Your task to perform on an android device: turn on the 24-hour format for clock Image 0: 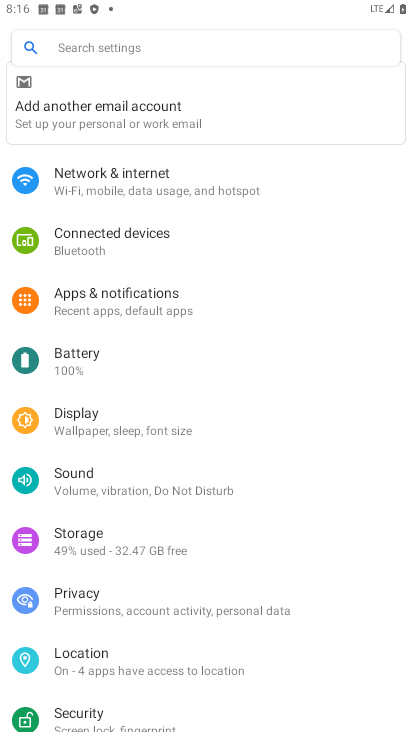
Step 0: press home button
Your task to perform on an android device: turn on the 24-hour format for clock Image 1: 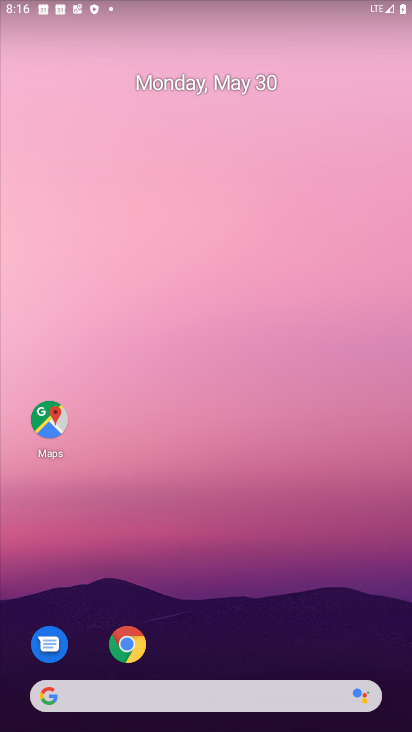
Step 1: drag from (257, 632) to (252, 146)
Your task to perform on an android device: turn on the 24-hour format for clock Image 2: 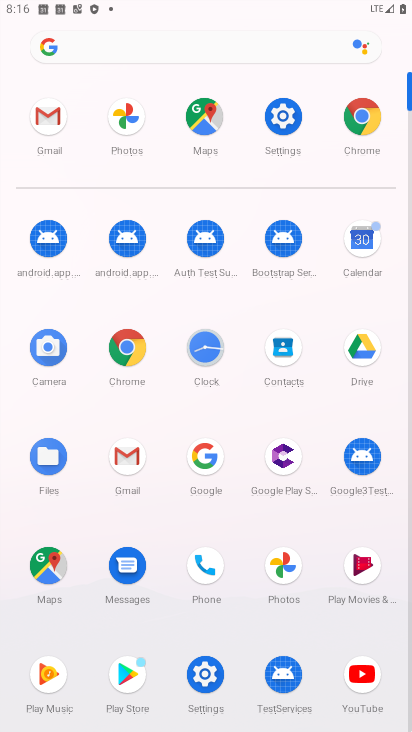
Step 2: click (204, 346)
Your task to perform on an android device: turn on the 24-hour format for clock Image 3: 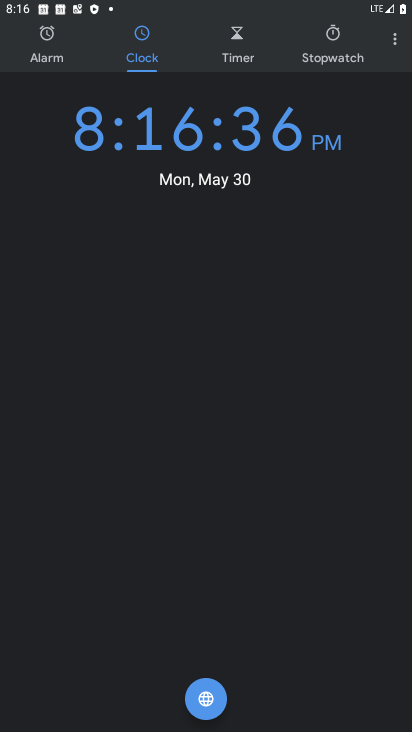
Step 3: click (397, 40)
Your task to perform on an android device: turn on the 24-hour format for clock Image 4: 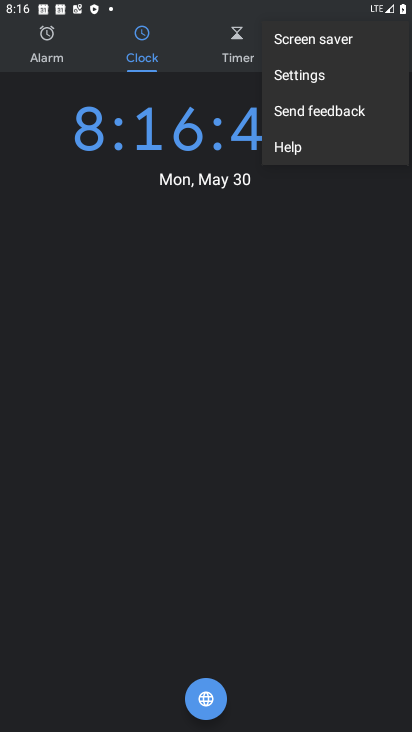
Step 4: click (307, 77)
Your task to perform on an android device: turn on the 24-hour format for clock Image 5: 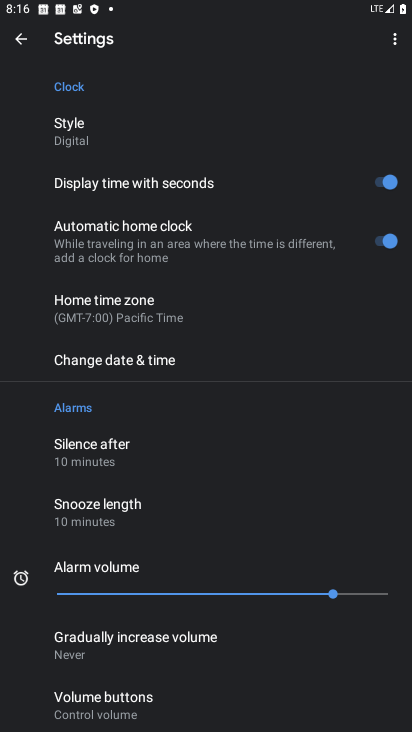
Step 5: click (133, 361)
Your task to perform on an android device: turn on the 24-hour format for clock Image 6: 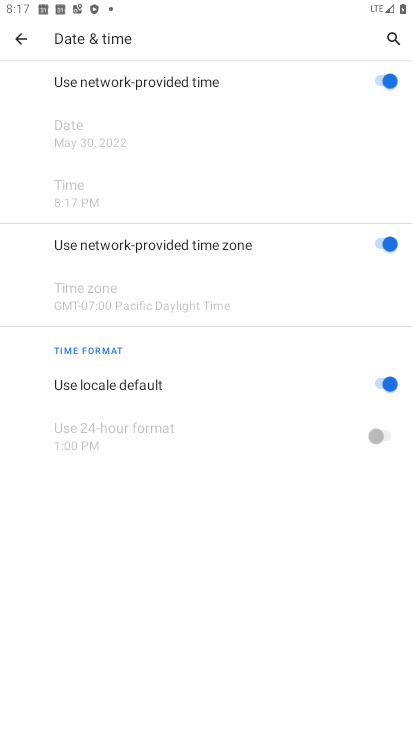
Step 6: click (382, 384)
Your task to perform on an android device: turn on the 24-hour format for clock Image 7: 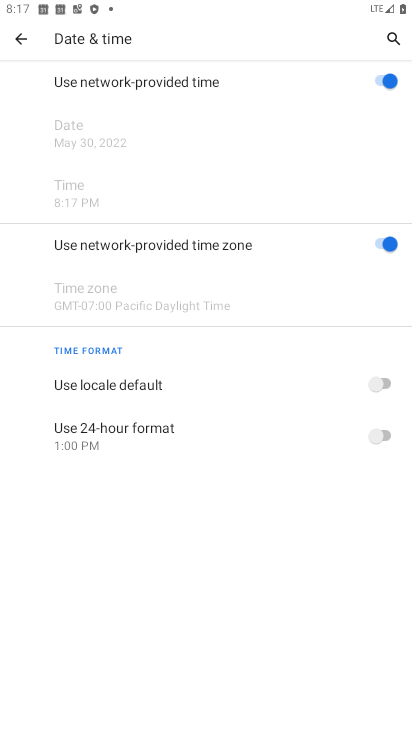
Step 7: click (382, 439)
Your task to perform on an android device: turn on the 24-hour format for clock Image 8: 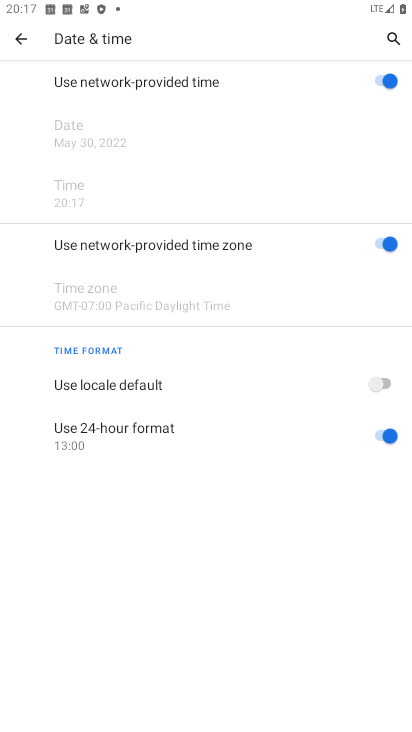
Step 8: task complete